Your task to perform on an android device: Go to calendar. Show me events next week Image 0: 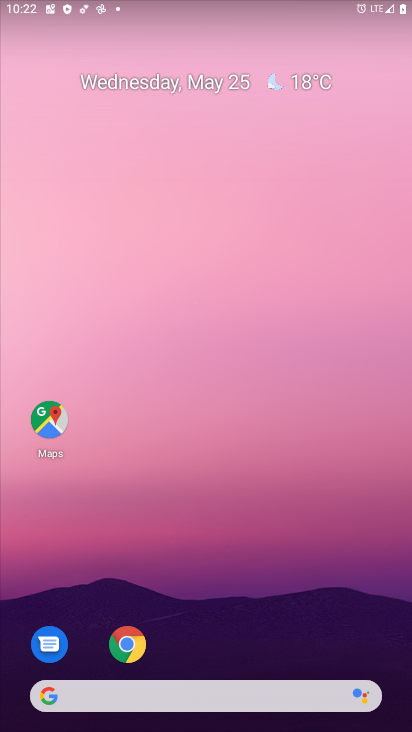
Step 0: drag from (196, 652) to (193, 111)
Your task to perform on an android device: Go to calendar. Show me events next week Image 1: 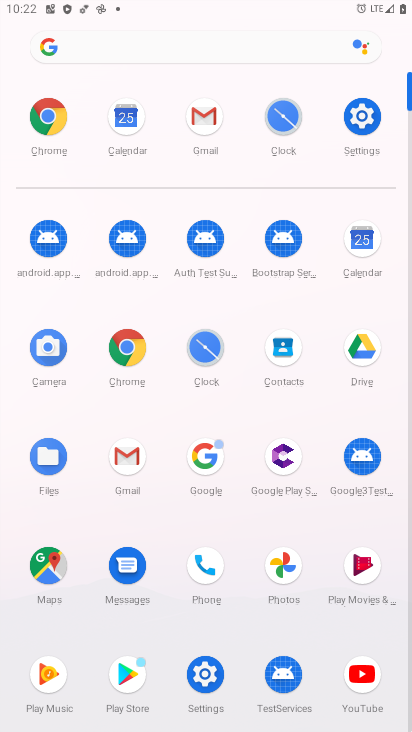
Step 1: click (360, 247)
Your task to perform on an android device: Go to calendar. Show me events next week Image 2: 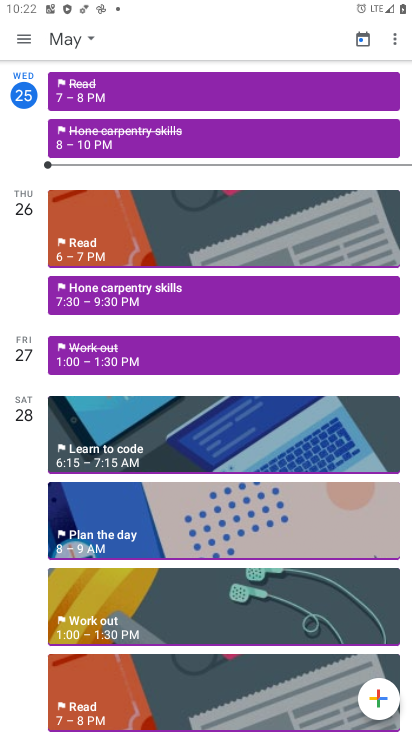
Step 2: task complete